Your task to perform on an android device: turn off javascript in the chrome app Image 0: 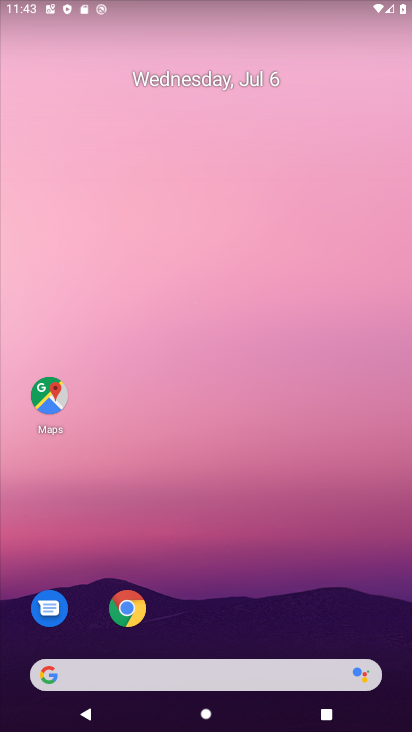
Step 0: click (136, 607)
Your task to perform on an android device: turn off javascript in the chrome app Image 1: 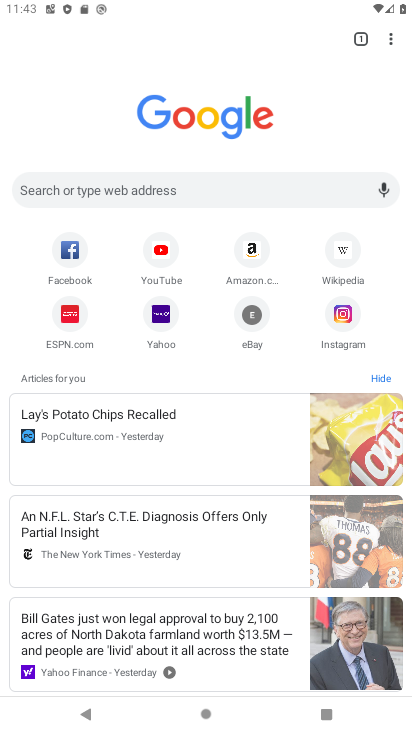
Step 1: click (395, 37)
Your task to perform on an android device: turn off javascript in the chrome app Image 2: 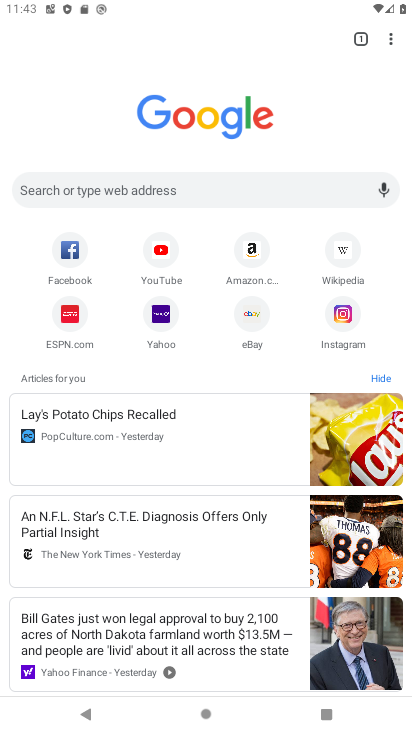
Step 2: click (394, 36)
Your task to perform on an android device: turn off javascript in the chrome app Image 3: 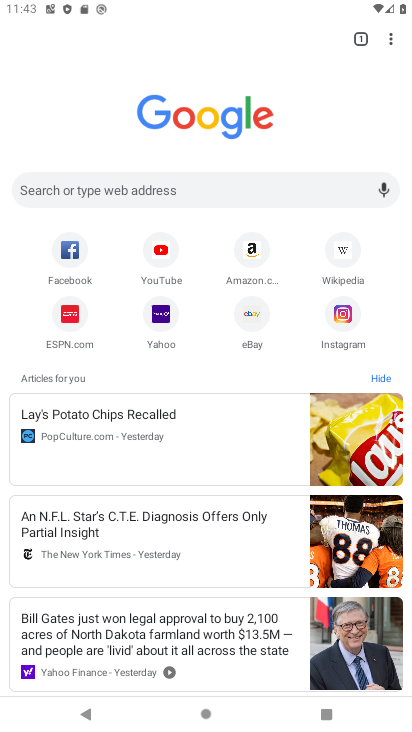
Step 3: click (382, 28)
Your task to perform on an android device: turn off javascript in the chrome app Image 4: 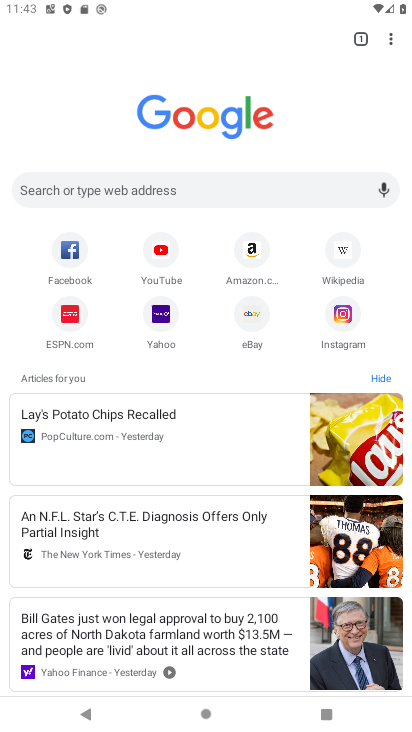
Step 4: click (382, 29)
Your task to perform on an android device: turn off javascript in the chrome app Image 5: 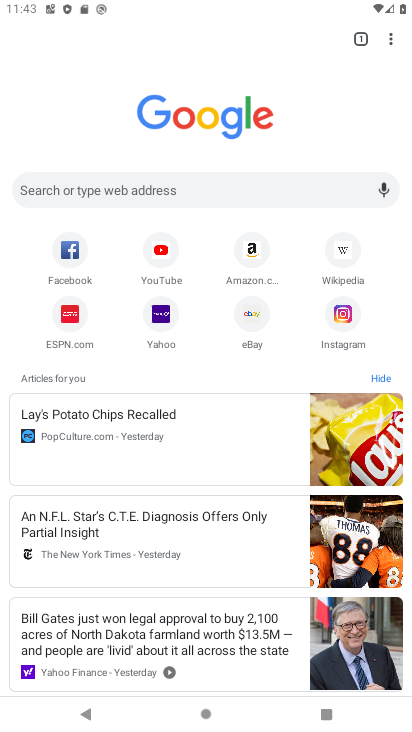
Step 5: click (388, 34)
Your task to perform on an android device: turn off javascript in the chrome app Image 6: 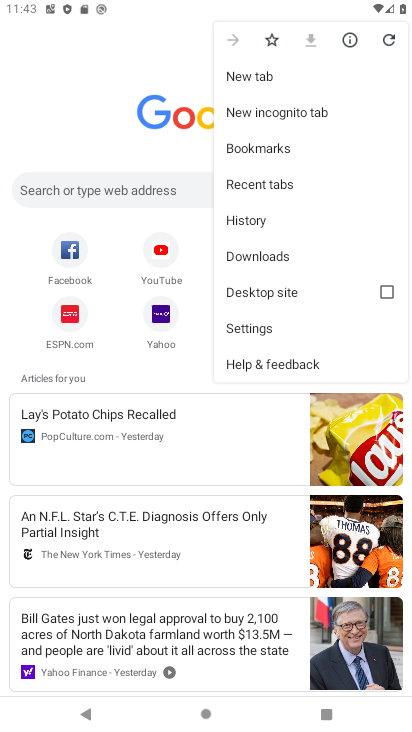
Step 6: click (247, 320)
Your task to perform on an android device: turn off javascript in the chrome app Image 7: 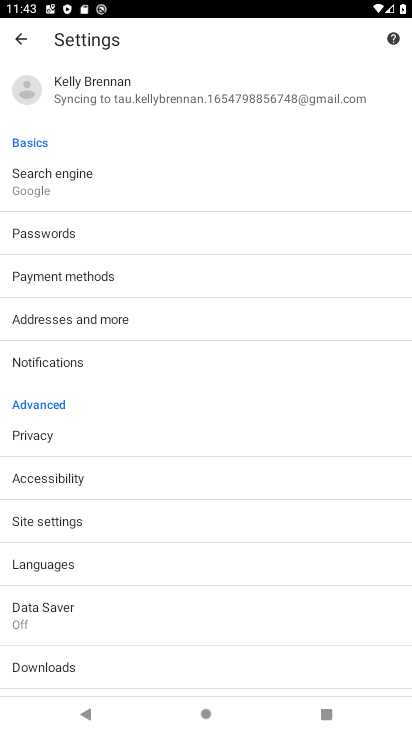
Step 7: click (46, 521)
Your task to perform on an android device: turn off javascript in the chrome app Image 8: 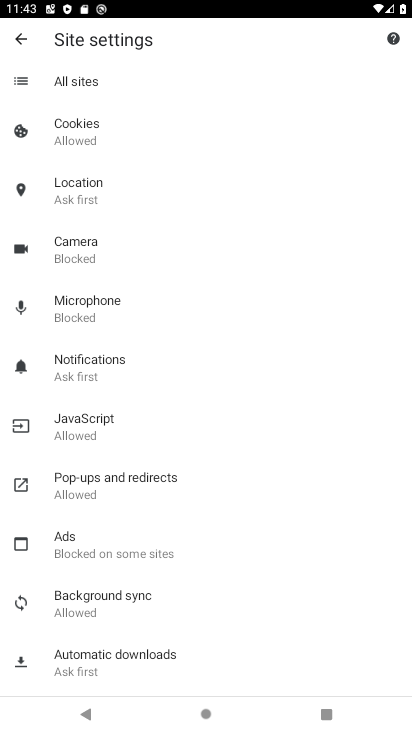
Step 8: click (98, 423)
Your task to perform on an android device: turn off javascript in the chrome app Image 9: 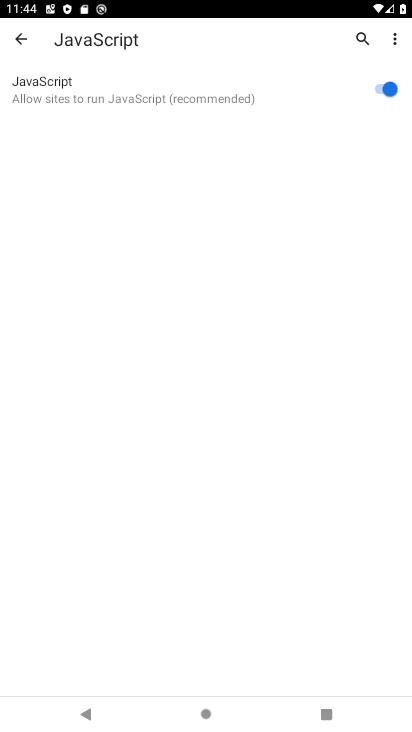
Step 9: click (379, 91)
Your task to perform on an android device: turn off javascript in the chrome app Image 10: 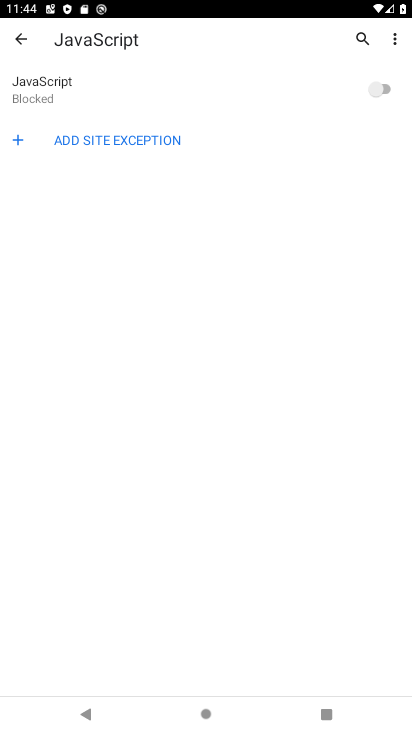
Step 10: task complete